Your task to perform on an android device: set the timer Image 0: 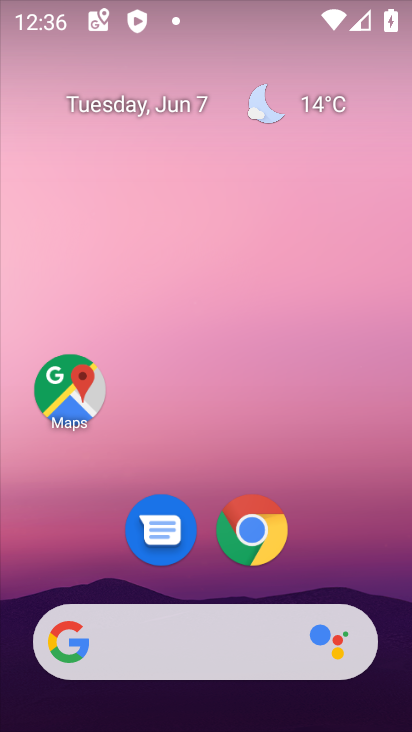
Step 0: drag from (336, 544) to (296, 136)
Your task to perform on an android device: set the timer Image 1: 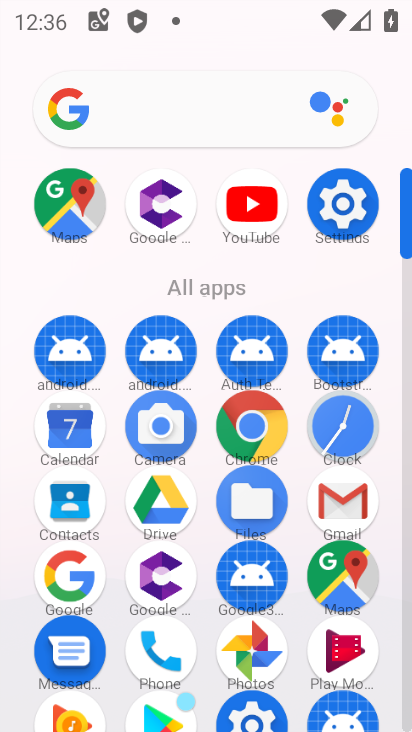
Step 1: click (357, 426)
Your task to perform on an android device: set the timer Image 2: 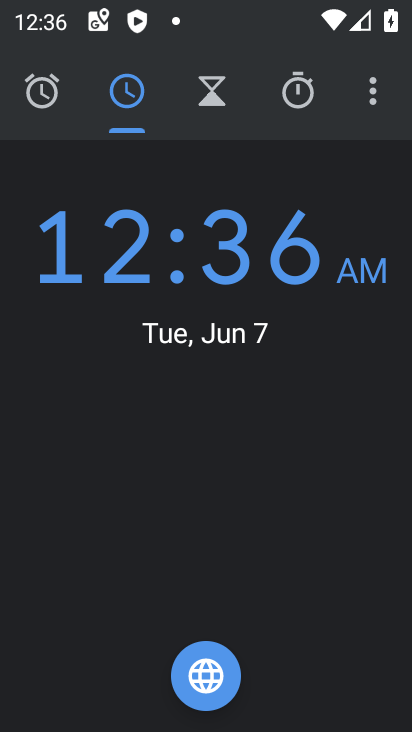
Step 2: click (206, 95)
Your task to perform on an android device: set the timer Image 3: 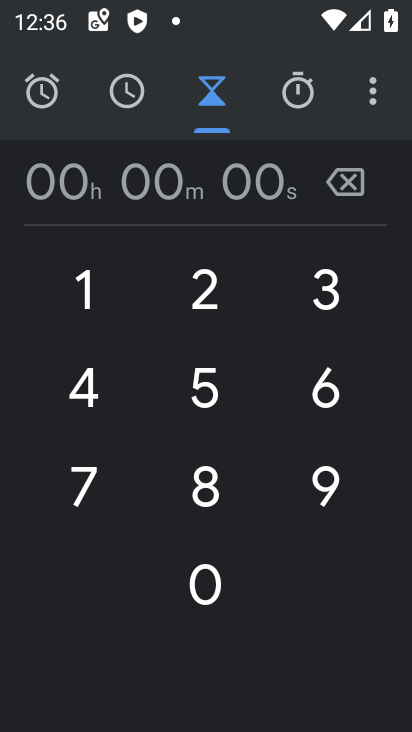
Step 3: click (143, 178)
Your task to perform on an android device: set the timer Image 4: 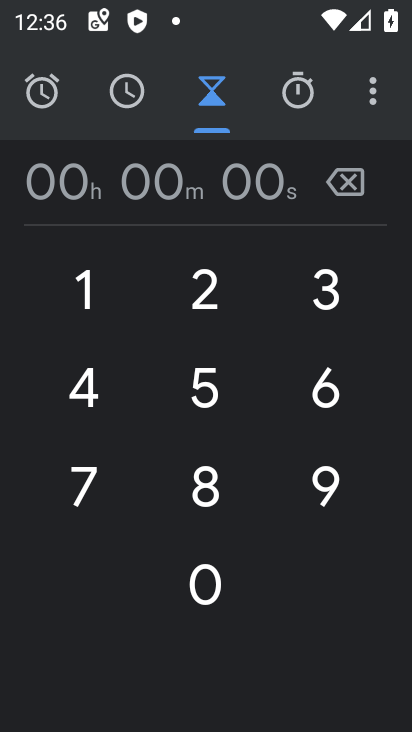
Step 4: type "456789"
Your task to perform on an android device: set the timer Image 5: 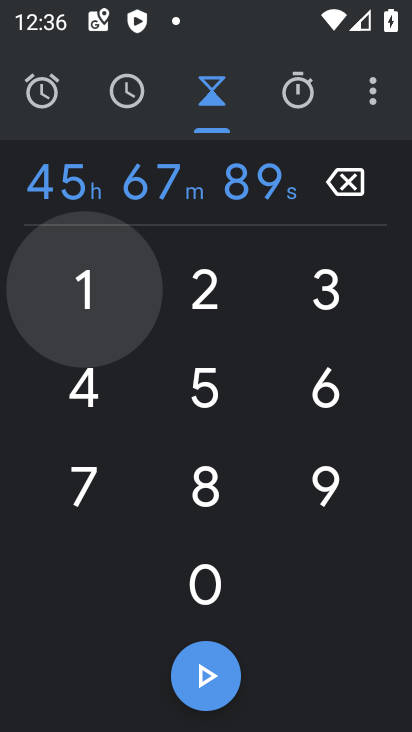
Step 5: task complete